Your task to perform on an android device: Clear the shopping cart on costco. Add logitech g910 to the cart on costco Image 0: 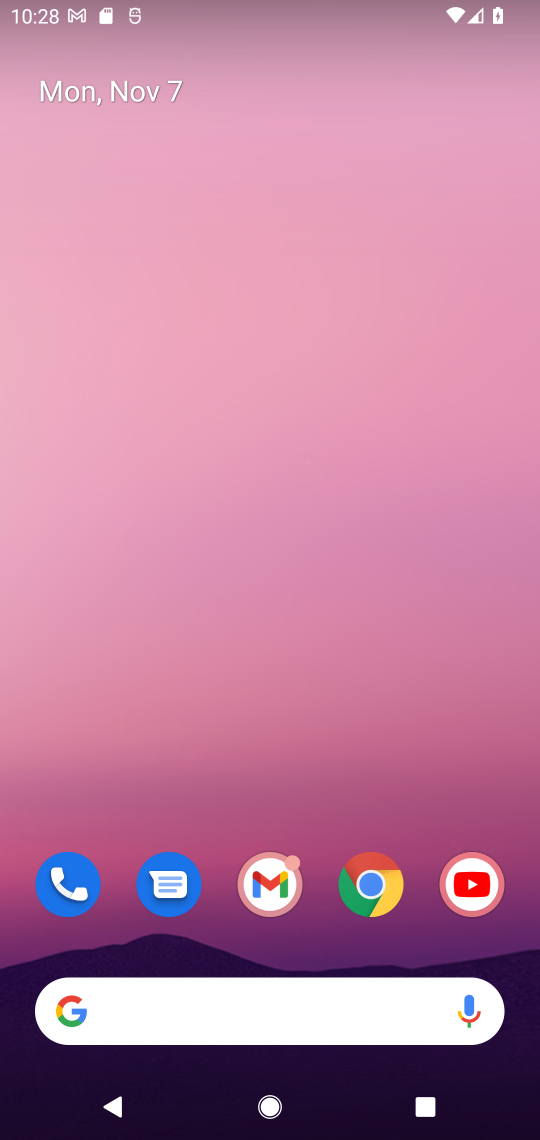
Step 0: click (373, 882)
Your task to perform on an android device: Clear the shopping cart on costco. Add logitech g910 to the cart on costco Image 1: 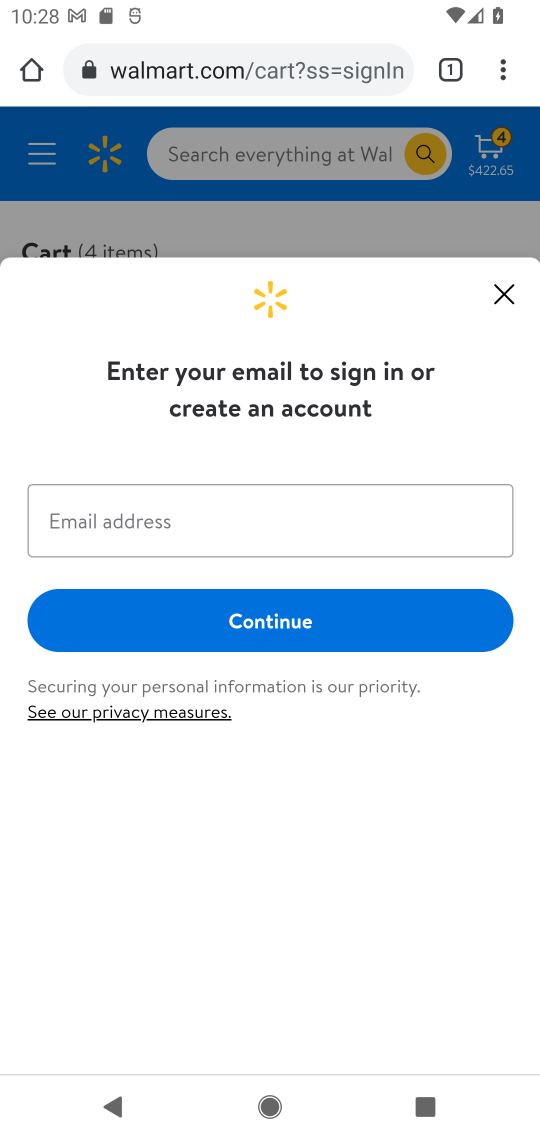
Step 1: click (263, 68)
Your task to perform on an android device: Clear the shopping cart on costco. Add logitech g910 to the cart on costco Image 2: 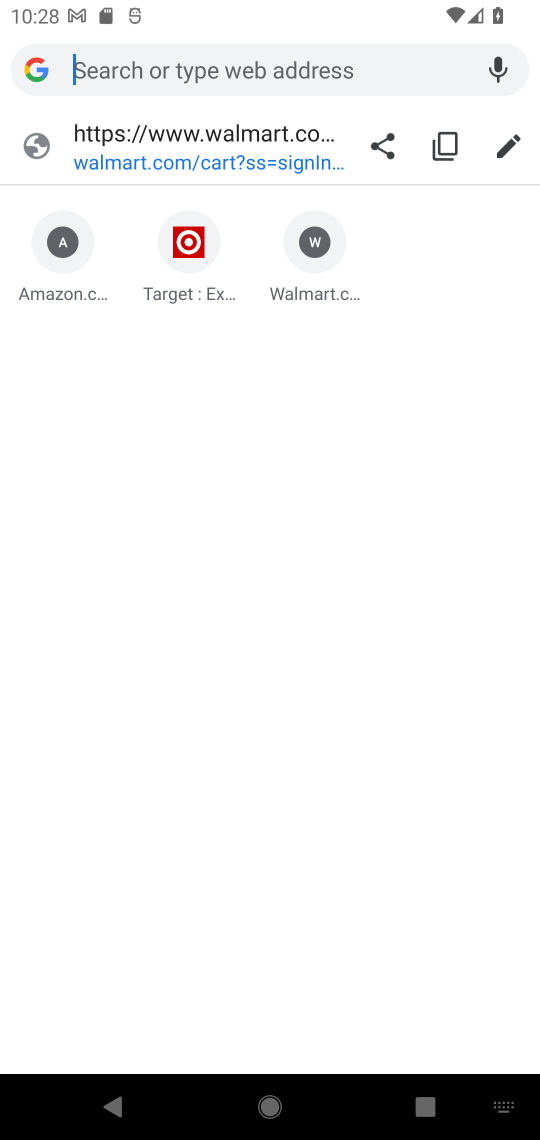
Step 2: type "costco"
Your task to perform on an android device: Clear the shopping cart on costco. Add logitech g910 to the cart on costco Image 3: 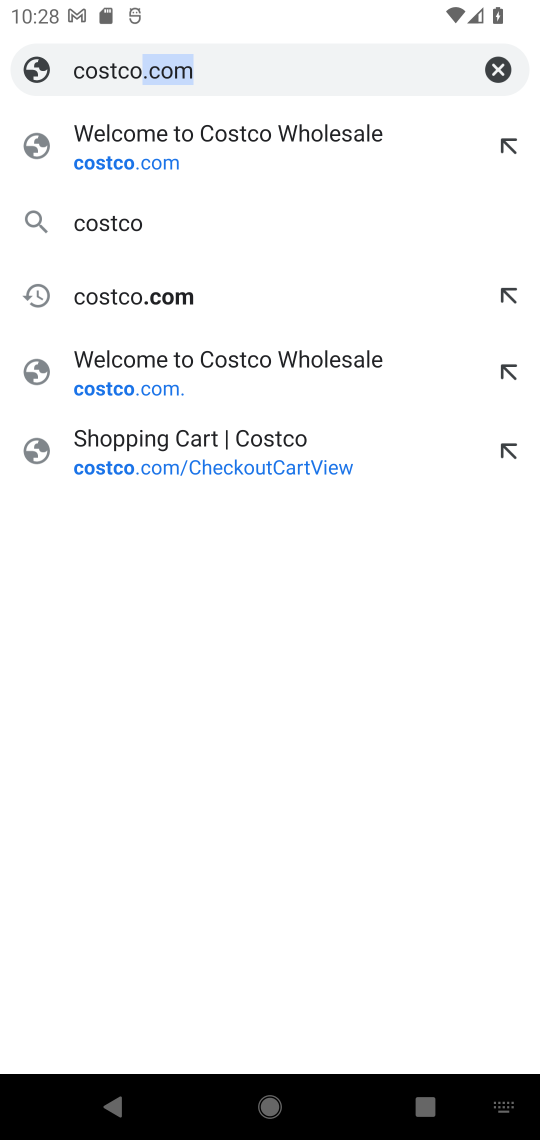
Step 3: click (165, 292)
Your task to perform on an android device: Clear the shopping cart on costco. Add logitech g910 to the cart on costco Image 4: 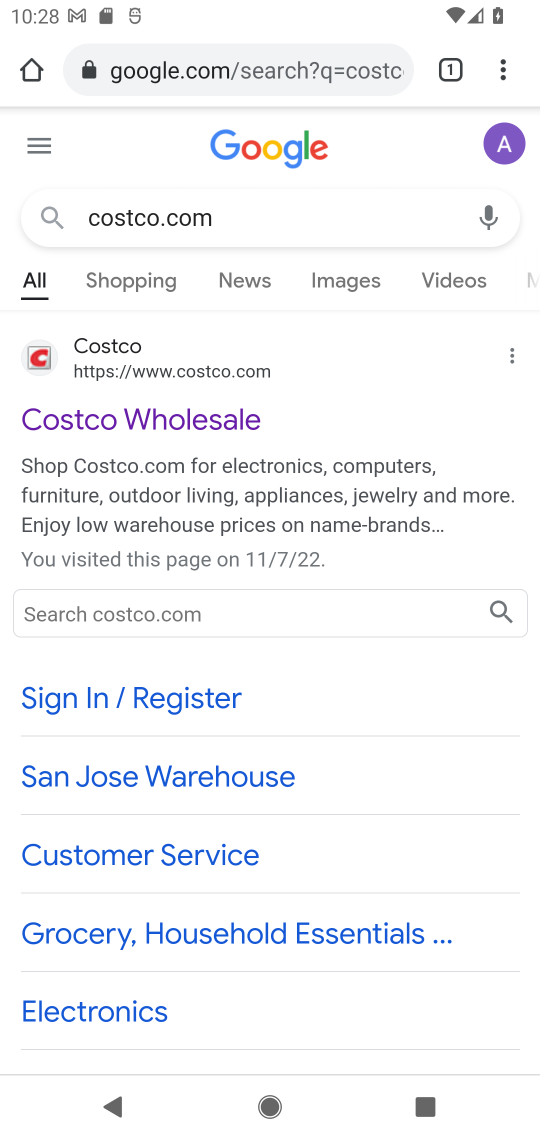
Step 4: click (163, 367)
Your task to perform on an android device: Clear the shopping cart on costco. Add logitech g910 to the cart on costco Image 5: 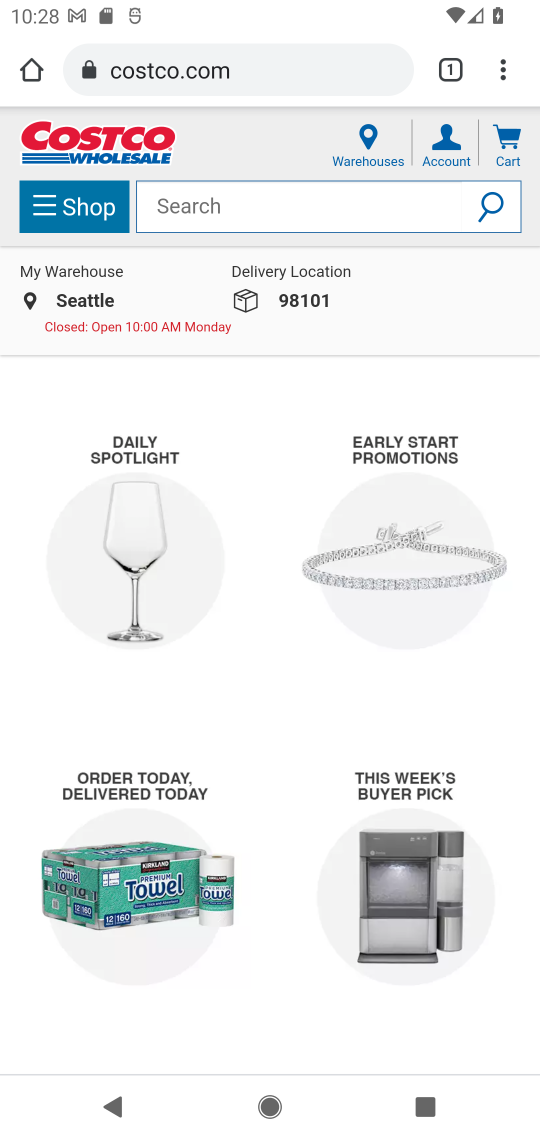
Step 5: click (229, 212)
Your task to perform on an android device: Clear the shopping cart on costco. Add logitech g910 to the cart on costco Image 6: 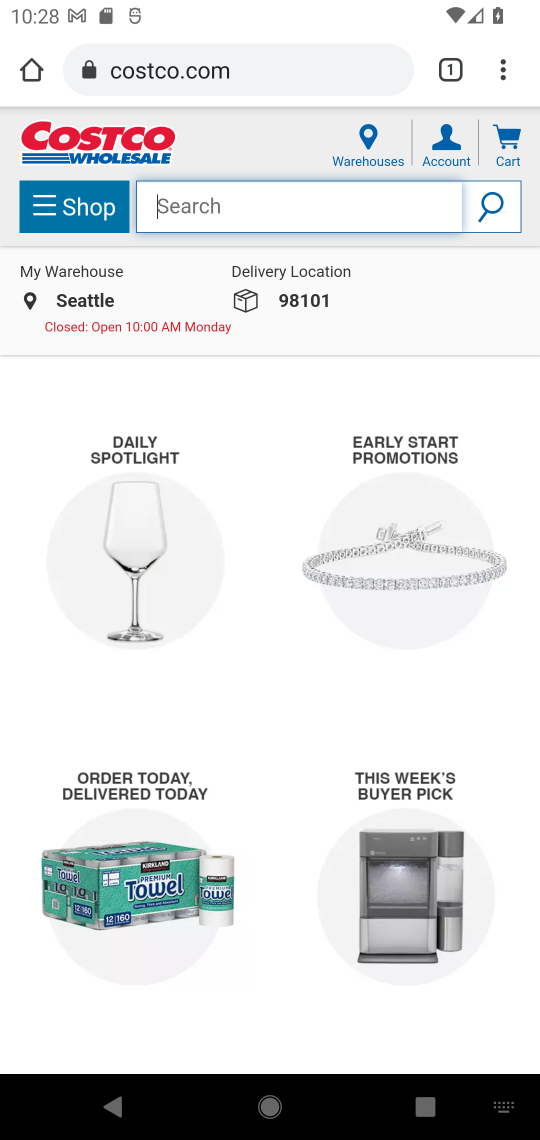
Step 6: type "logitech g910"
Your task to perform on an android device: Clear the shopping cart on costco. Add logitech g910 to the cart on costco Image 7: 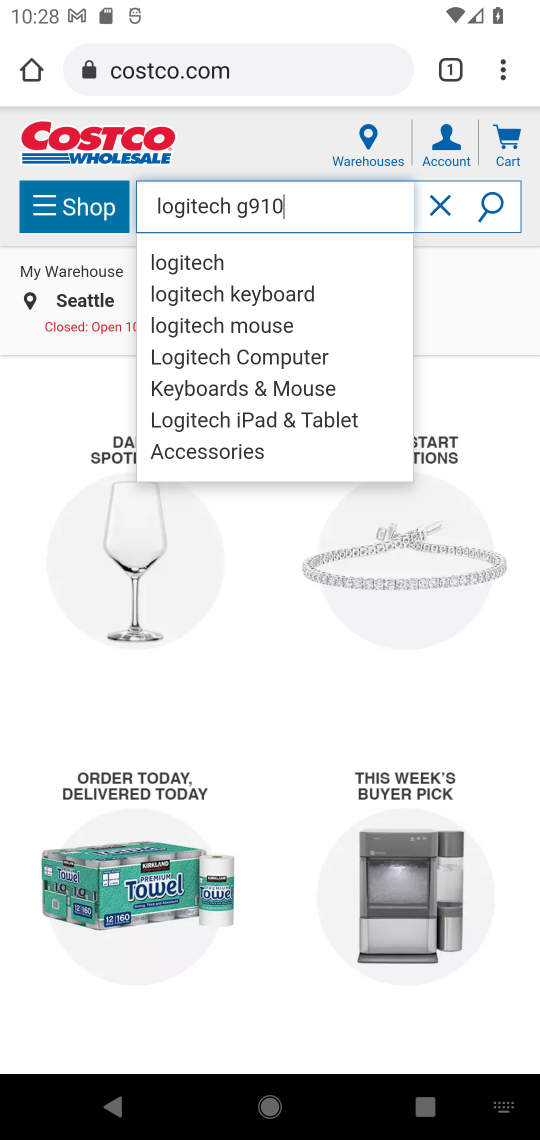
Step 7: click (481, 270)
Your task to perform on an android device: Clear the shopping cart on costco. Add logitech g910 to the cart on costco Image 8: 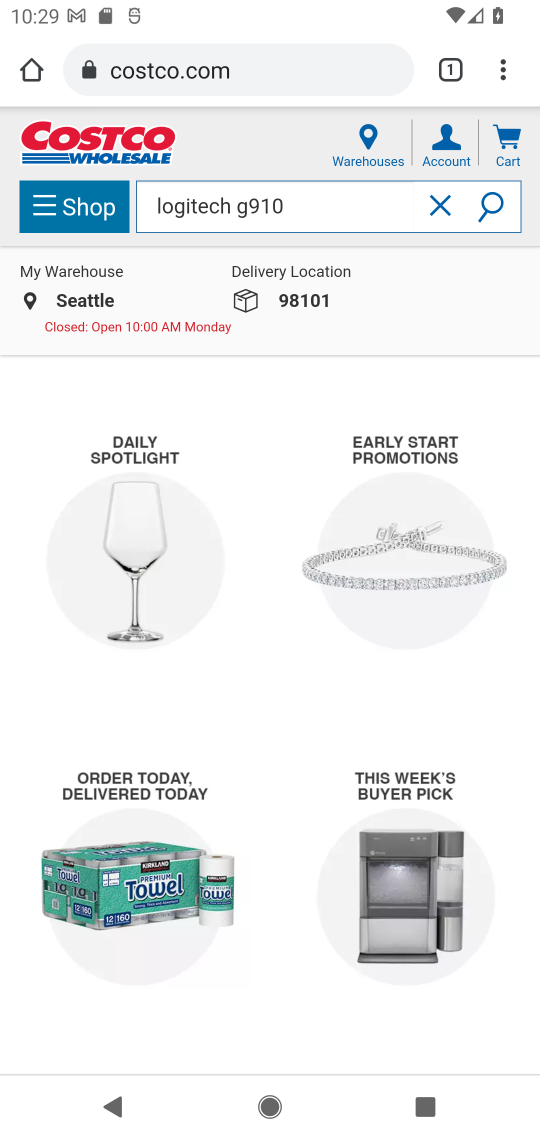
Step 8: task complete